Your task to perform on an android device: Go to CNN.com Image 0: 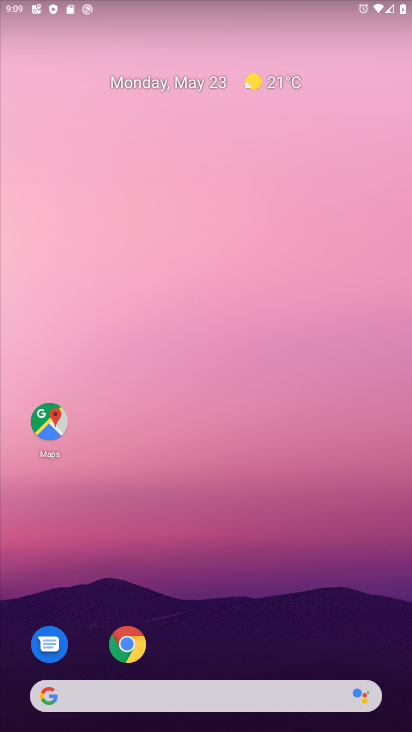
Step 0: click (103, 688)
Your task to perform on an android device: Go to CNN.com Image 1: 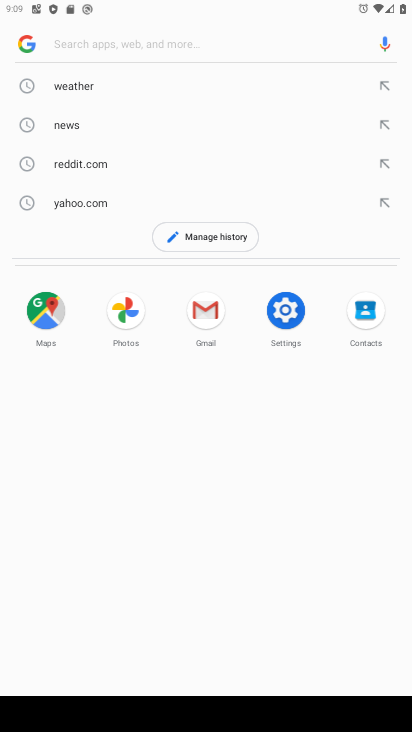
Step 1: type "cnn.com"
Your task to perform on an android device: Go to CNN.com Image 2: 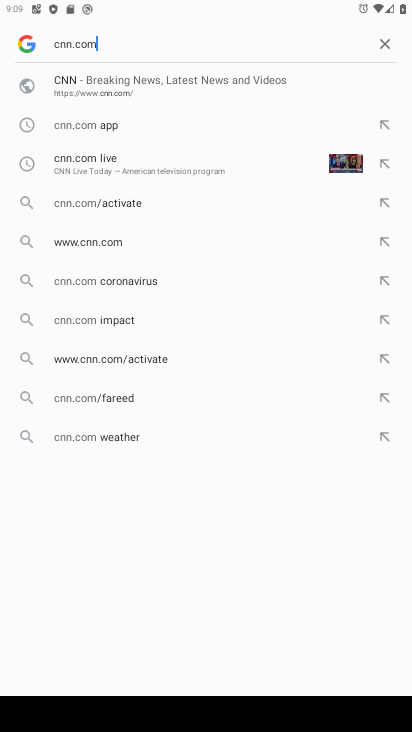
Step 2: click (175, 77)
Your task to perform on an android device: Go to CNN.com Image 3: 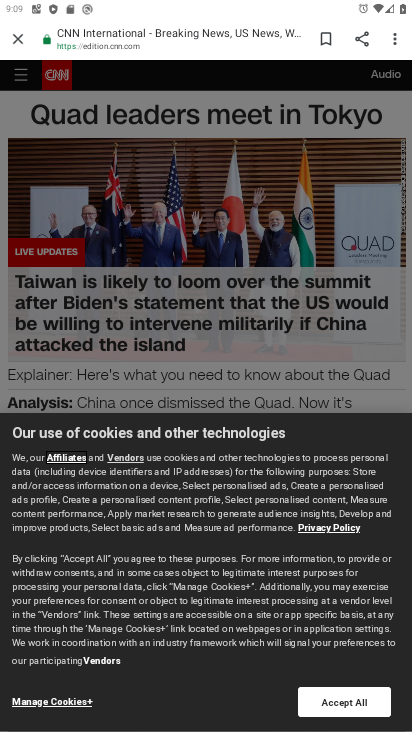
Step 3: task complete